Your task to perform on an android device: turn on javascript in the chrome app Image 0: 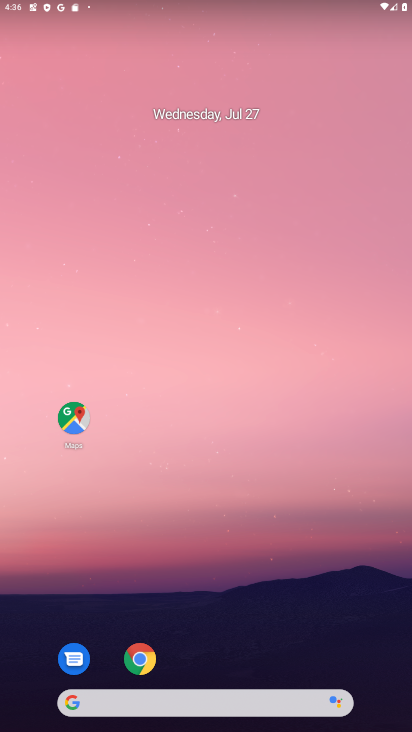
Step 0: click (143, 668)
Your task to perform on an android device: turn on javascript in the chrome app Image 1: 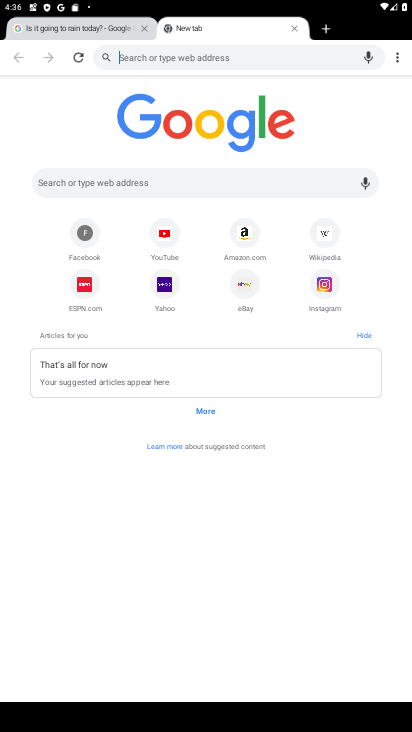
Step 1: click (394, 61)
Your task to perform on an android device: turn on javascript in the chrome app Image 2: 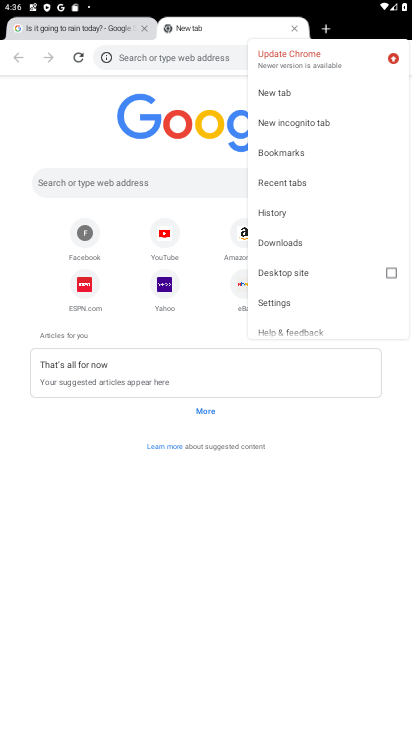
Step 2: click (307, 304)
Your task to perform on an android device: turn on javascript in the chrome app Image 3: 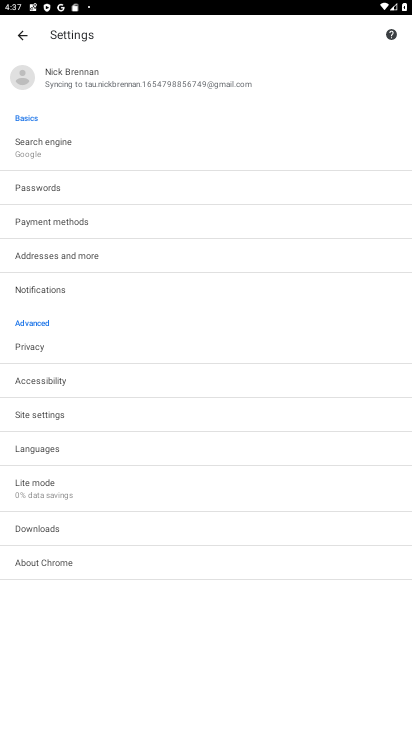
Step 3: click (99, 418)
Your task to perform on an android device: turn on javascript in the chrome app Image 4: 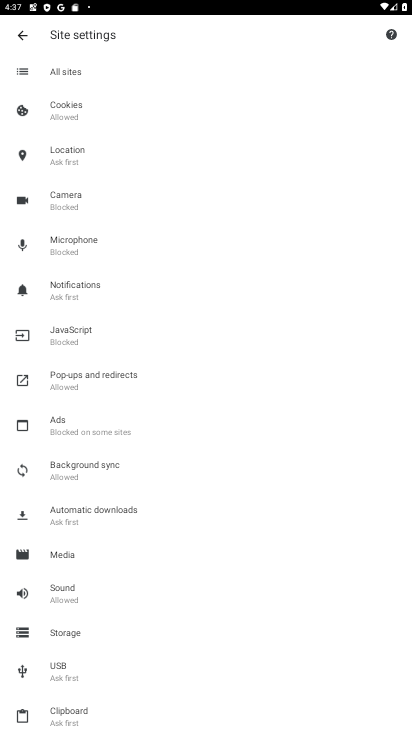
Step 4: click (89, 326)
Your task to perform on an android device: turn on javascript in the chrome app Image 5: 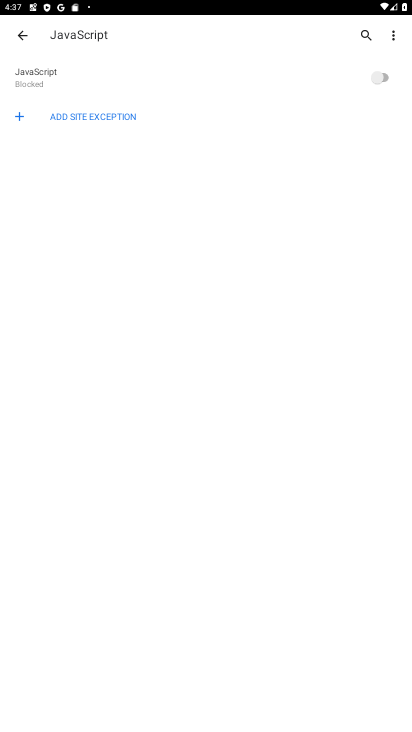
Step 5: click (376, 74)
Your task to perform on an android device: turn on javascript in the chrome app Image 6: 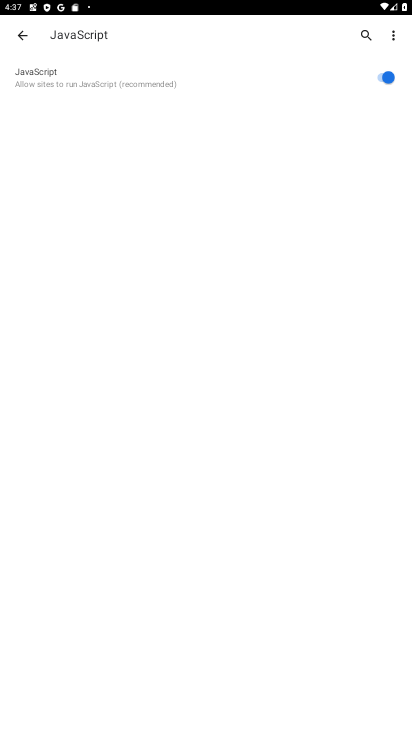
Step 6: task complete